Your task to perform on an android device: check storage Image 0: 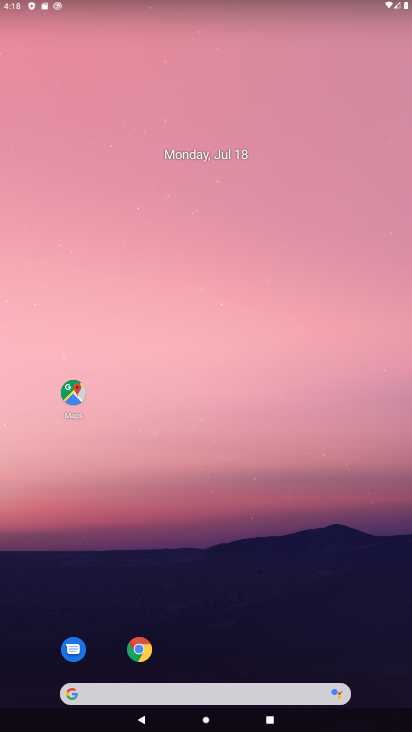
Step 0: drag from (209, 654) to (202, 102)
Your task to perform on an android device: check storage Image 1: 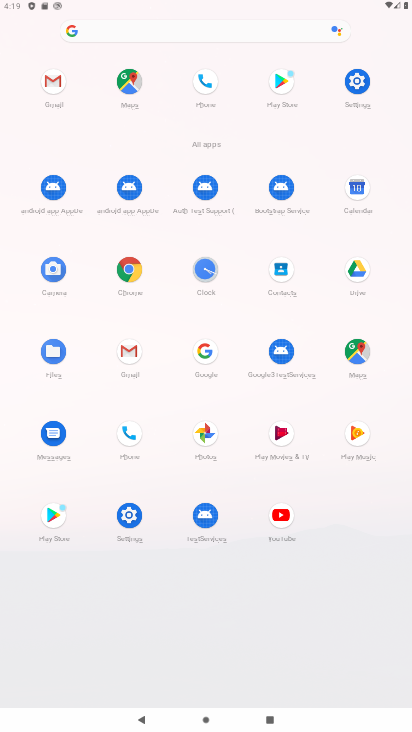
Step 1: click (129, 526)
Your task to perform on an android device: check storage Image 2: 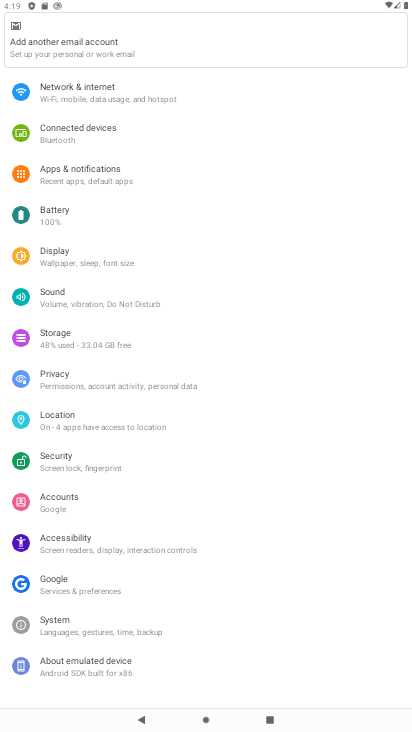
Step 2: click (86, 342)
Your task to perform on an android device: check storage Image 3: 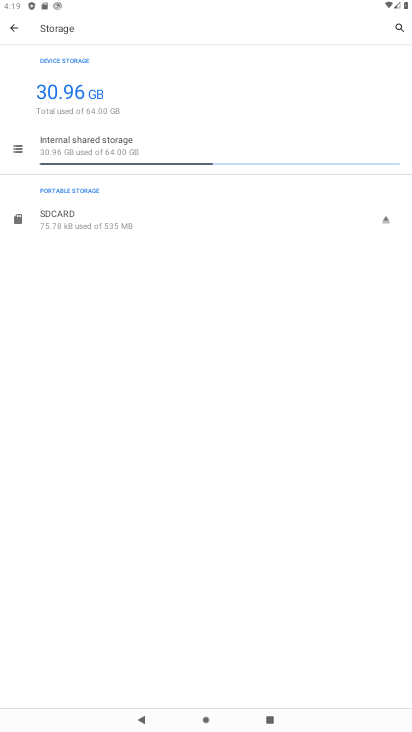
Step 3: click (101, 155)
Your task to perform on an android device: check storage Image 4: 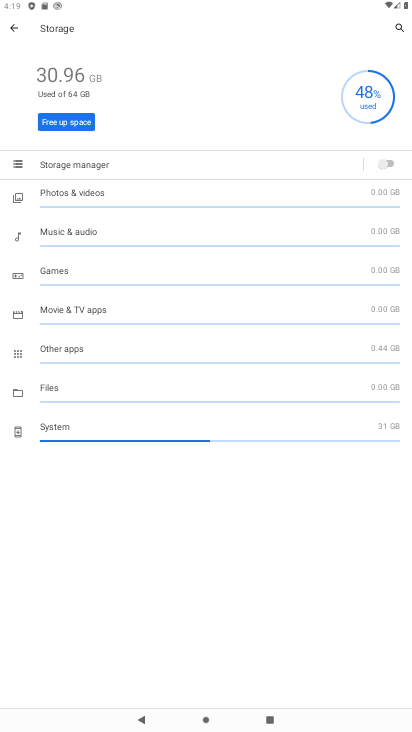
Step 4: task complete